Your task to perform on an android device: turn off wifi Image 0: 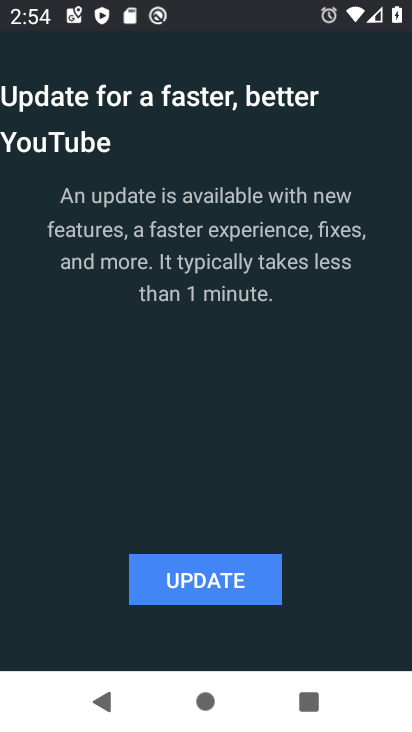
Step 0: press home button
Your task to perform on an android device: turn off wifi Image 1: 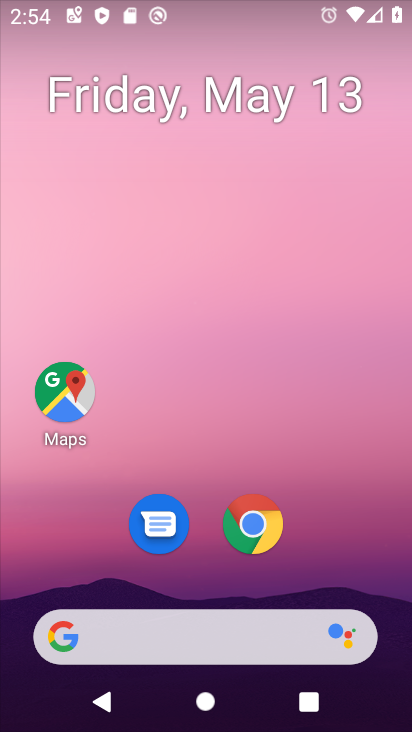
Step 1: drag from (304, 541) to (315, 72)
Your task to perform on an android device: turn off wifi Image 2: 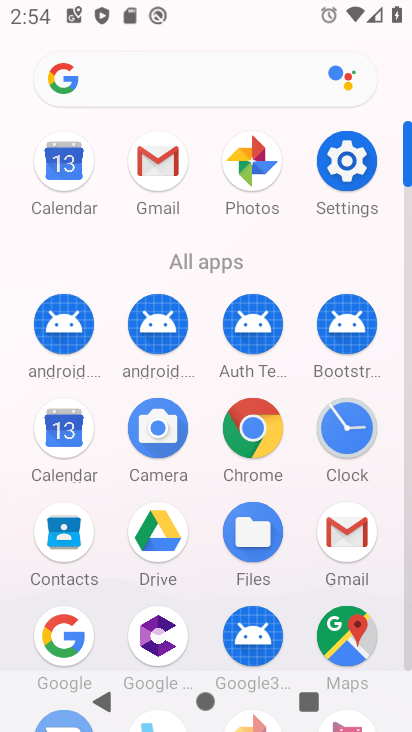
Step 2: click (334, 151)
Your task to perform on an android device: turn off wifi Image 3: 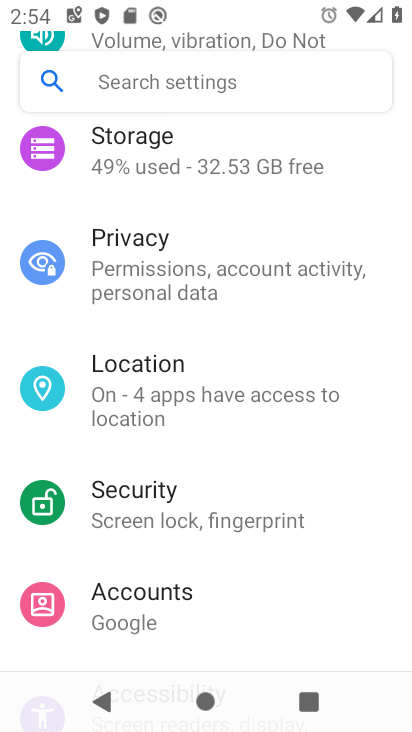
Step 3: drag from (276, 191) to (211, 509)
Your task to perform on an android device: turn off wifi Image 4: 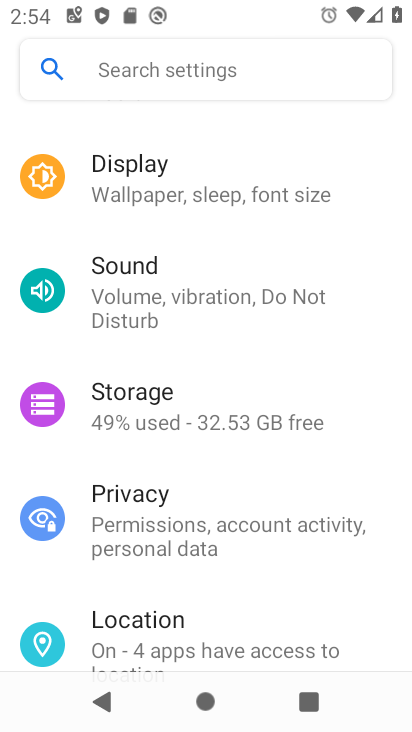
Step 4: drag from (238, 146) to (198, 425)
Your task to perform on an android device: turn off wifi Image 5: 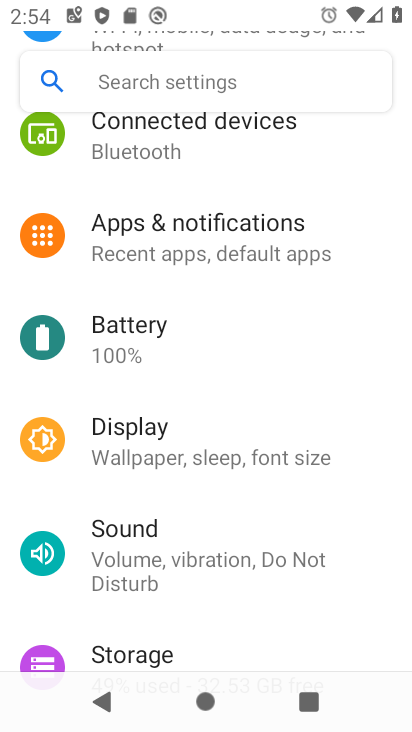
Step 5: drag from (247, 168) to (211, 503)
Your task to perform on an android device: turn off wifi Image 6: 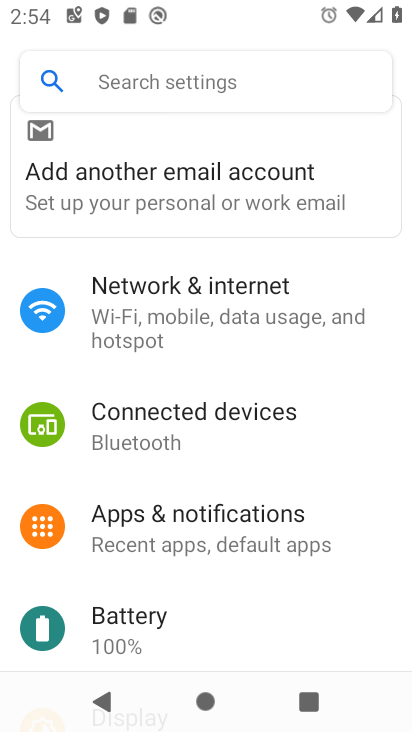
Step 6: click (244, 297)
Your task to perform on an android device: turn off wifi Image 7: 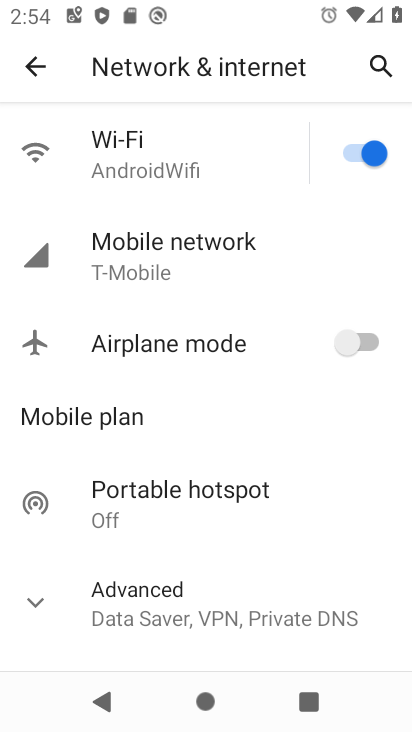
Step 7: click (354, 153)
Your task to perform on an android device: turn off wifi Image 8: 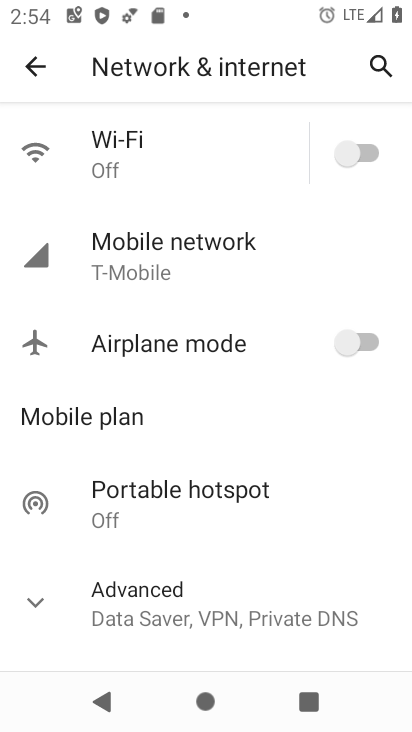
Step 8: task complete